Your task to perform on an android device: toggle javascript in the chrome app Image 0: 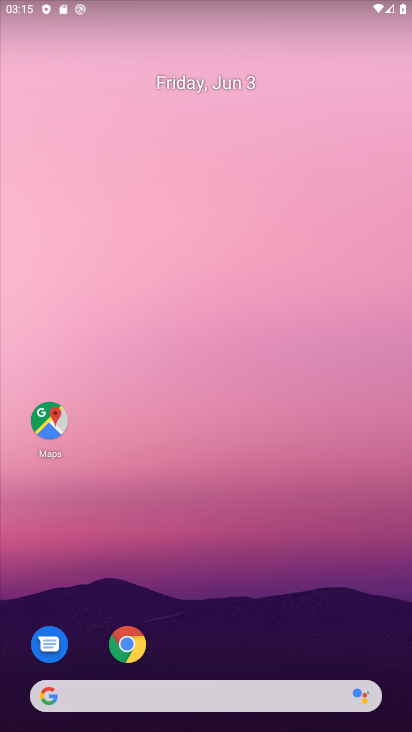
Step 0: press home button
Your task to perform on an android device: toggle javascript in the chrome app Image 1: 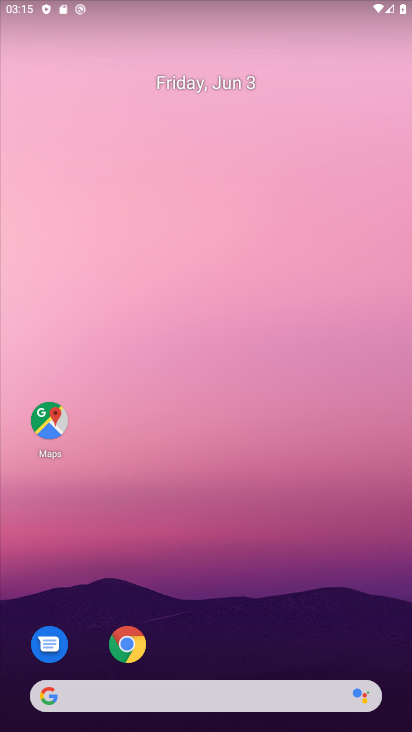
Step 1: click (122, 651)
Your task to perform on an android device: toggle javascript in the chrome app Image 2: 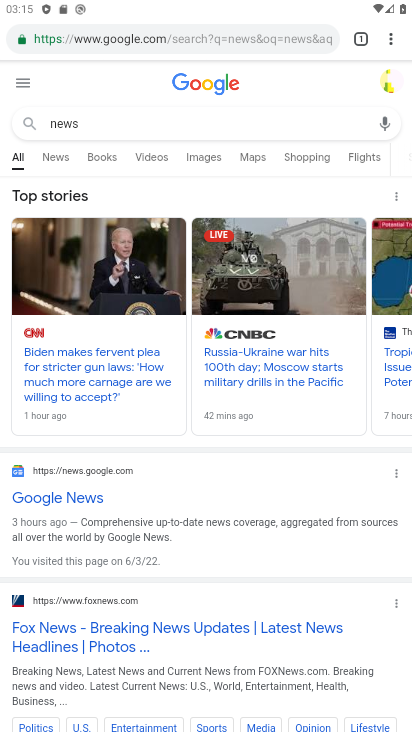
Step 2: click (391, 33)
Your task to perform on an android device: toggle javascript in the chrome app Image 3: 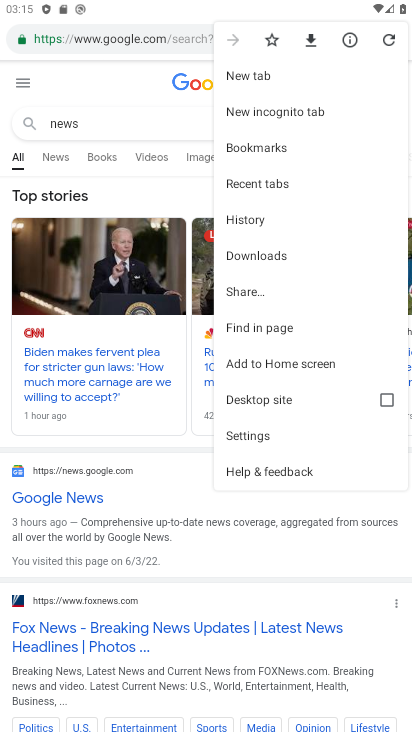
Step 3: click (271, 439)
Your task to perform on an android device: toggle javascript in the chrome app Image 4: 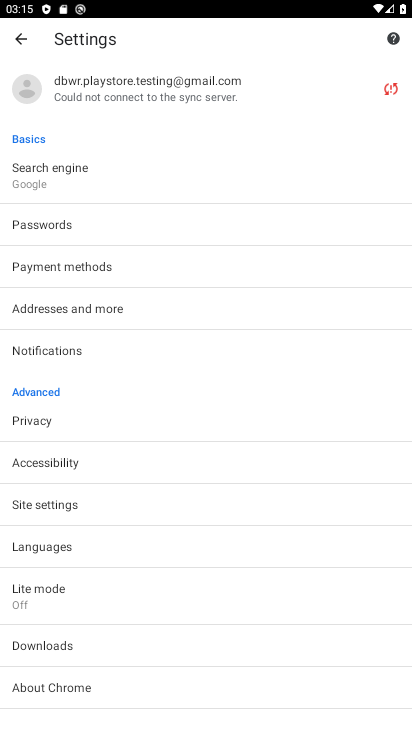
Step 4: click (63, 500)
Your task to perform on an android device: toggle javascript in the chrome app Image 5: 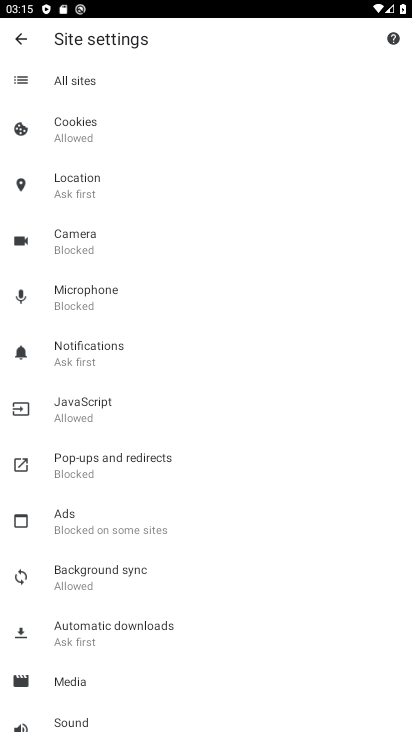
Step 5: click (71, 400)
Your task to perform on an android device: toggle javascript in the chrome app Image 6: 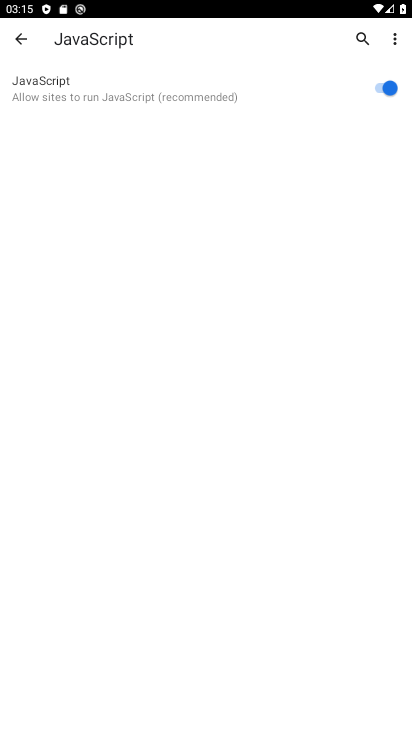
Step 6: click (247, 80)
Your task to perform on an android device: toggle javascript in the chrome app Image 7: 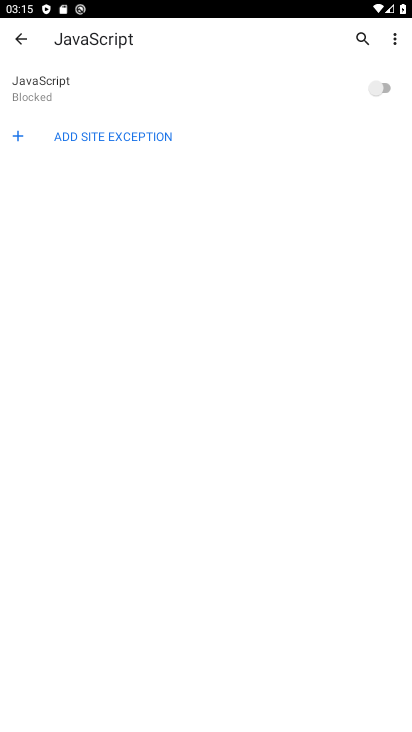
Step 7: task complete